Your task to perform on an android device: Open Reddit.com Image 0: 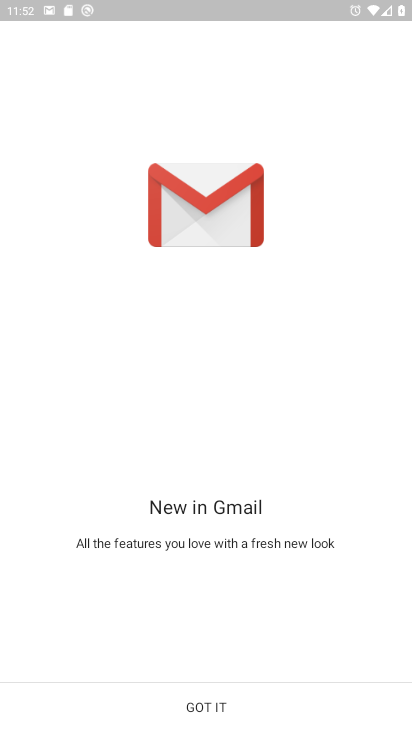
Step 0: press home button
Your task to perform on an android device: Open Reddit.com Image 1: 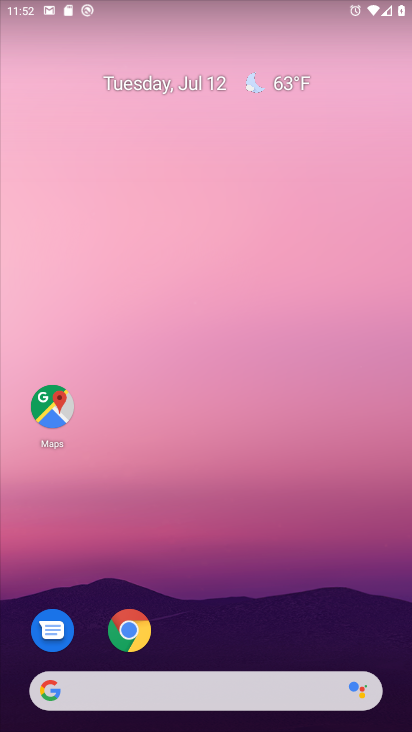
Step 1: click (100, 636)
Your task to perform on an android device: Open Reddit.com Image 2: 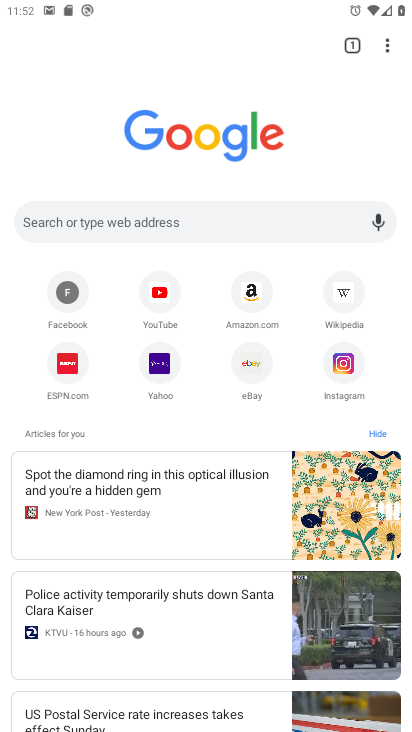
Step 2: click (212, 228)
Your task to perform on an android device: Open Reddit.com Image 3: 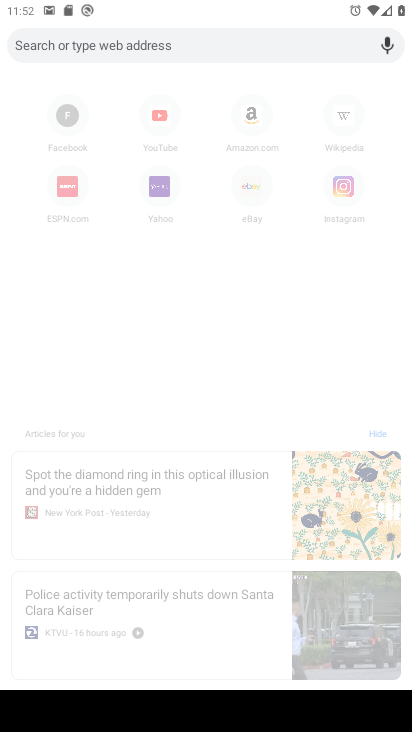
Step 3: type "reddit.com"
Your task to perform on an android device: Open Reddit.com Image 4: 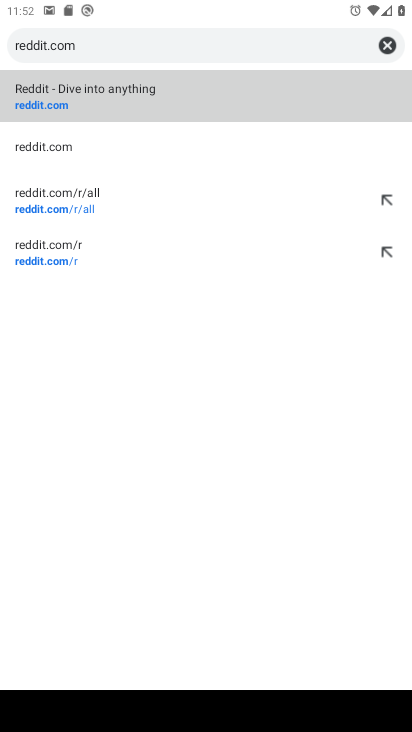
Step 4: click (164, 124)
Your task to perform on an android device: Open Reddit.com Image 5: 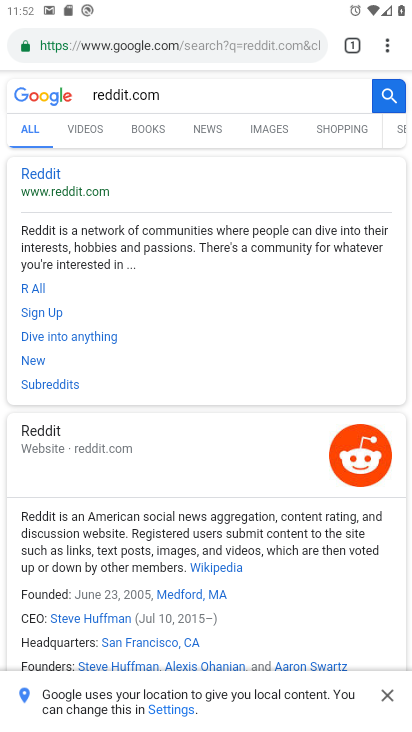
Step 5: click (64, 191)
Your task to perform on an android device: Open Reddit.com Image 6: 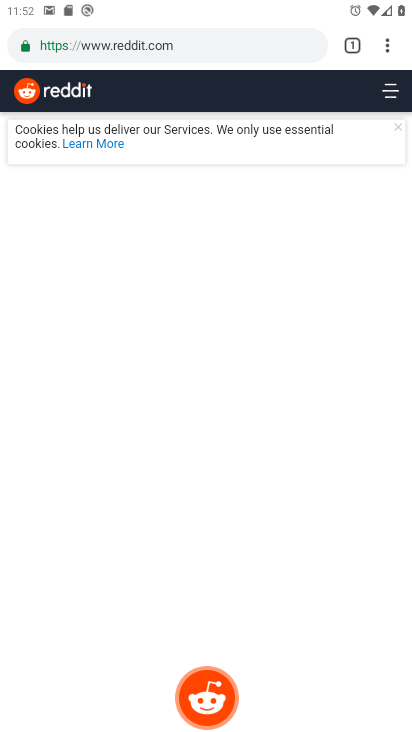
Step 6: task complete